Your task to perform on an android device: Go to Wikipedia Image 0: 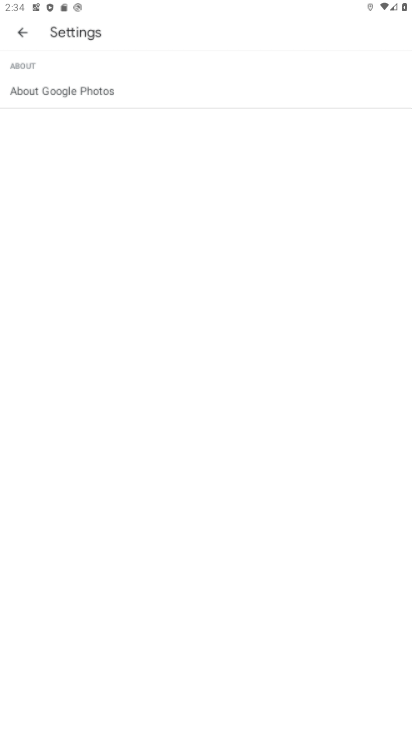
Step 0: drag from (268, 605) to (280, 351)
Your task to perform on an android device: Go to Wikipedia Image 1: 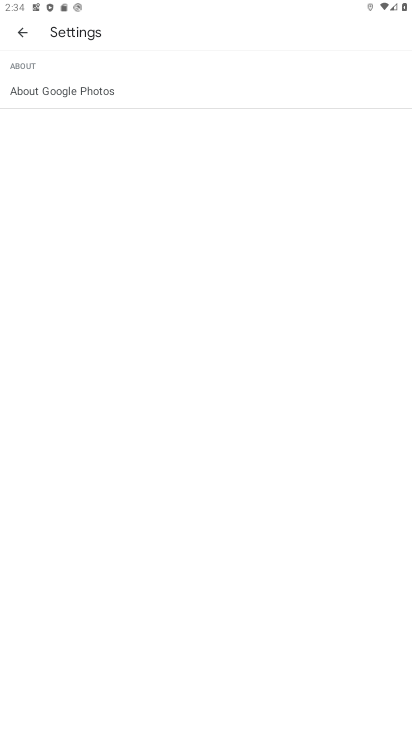
Step 1: press home button
Your task to perform on an android device: Go to Wikipedia Image 2: 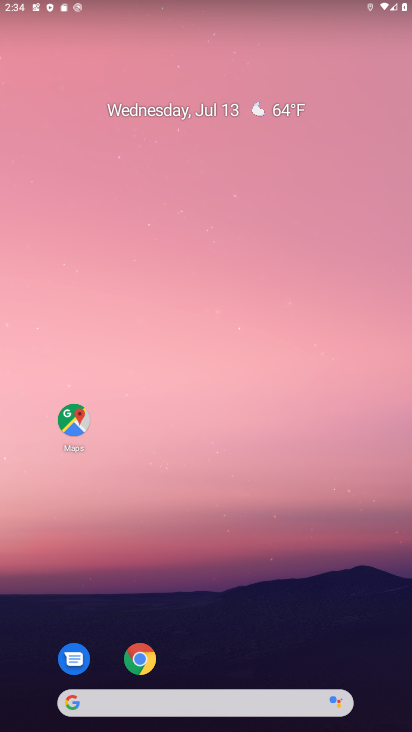
Step 2: drag from (202, 639) to (240, 436)
Your task to perform on an android device: Go to Wikipedia Image 3: 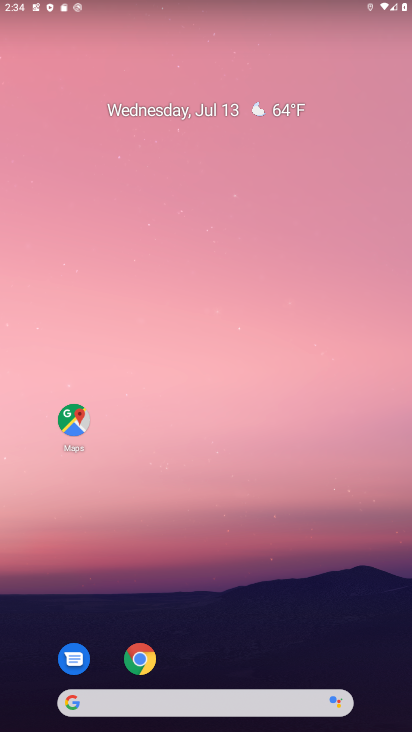
Step 3: drag from (187, 568) to (193, 139)
Your task to perform on an android device: Go to Wikipedia Image 4: 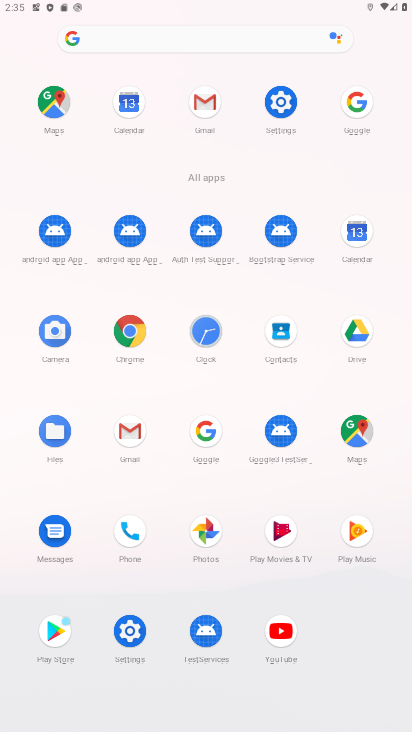
Step 4: click (135, 323)
Your task to perform on an android device: Go to Wikipedia Image 5: 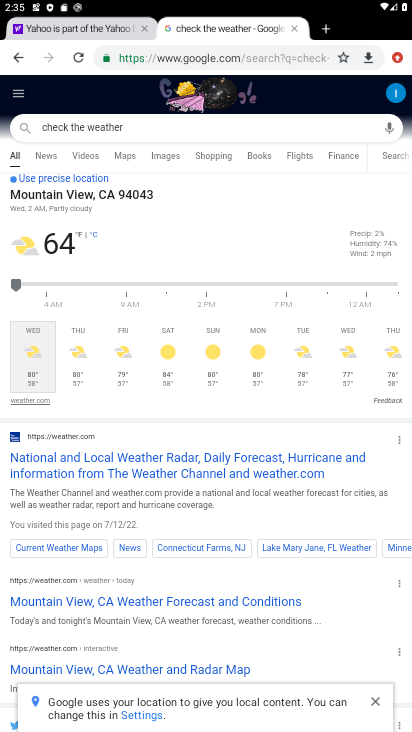
Step 5: click (325, 27)
Your task to perform on an android device: Go to Wikipedia Image 6: 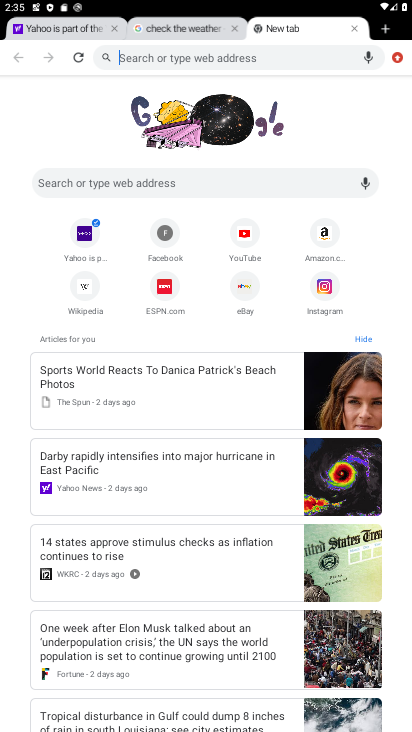
Step 6: click (85, 293)
Your task to perform on an android device: Go to Wikipedia Image 7: 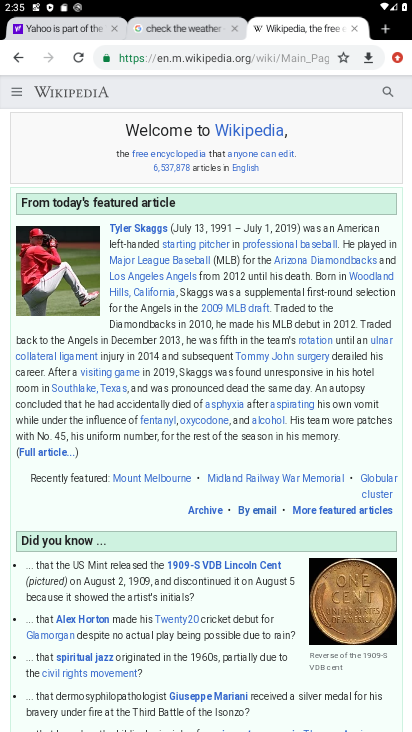
Step 7: task complete